Your task to perform on an android device: find snoozed emails in the gmail app Image 0: 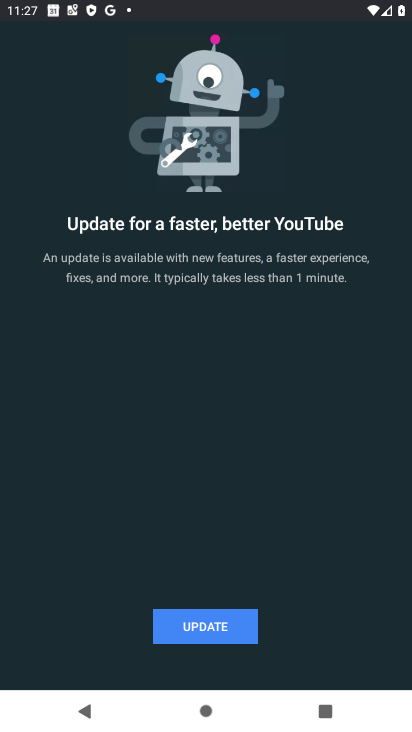
Step 0: press home button
Your task to perform on an android device: find snoozed emails in the gmail app Image 1: 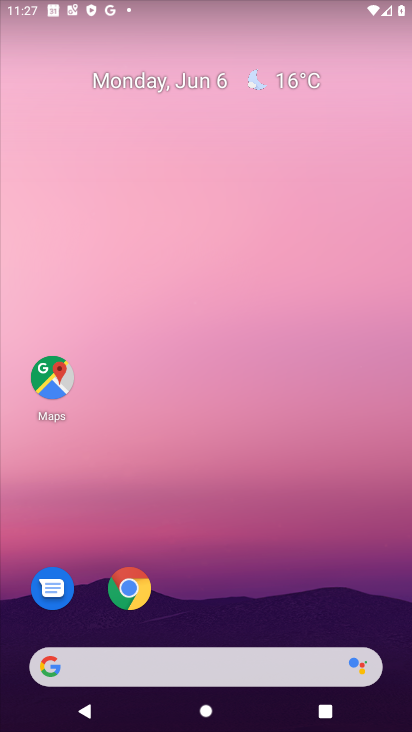
Step 1: drag from (313, 572) to (322, 292)
Your task to perform on an android device: find snoozed emails in the gmail app Image 2: 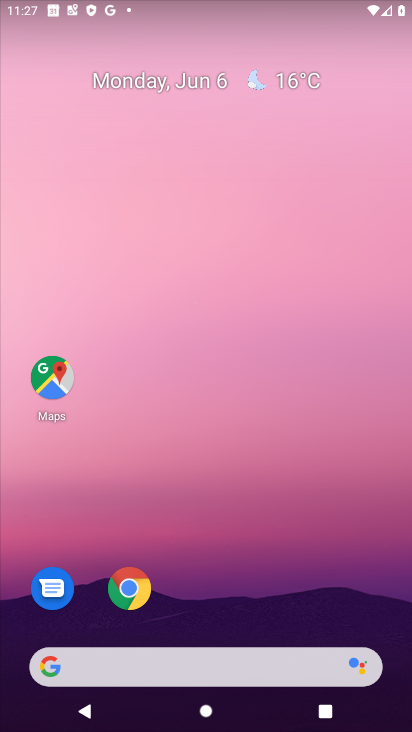
Step 2: drag from (320, 502) to (279, 133)
Your task to perform on an android device: find snoozed emails in the gmail app Image 3: 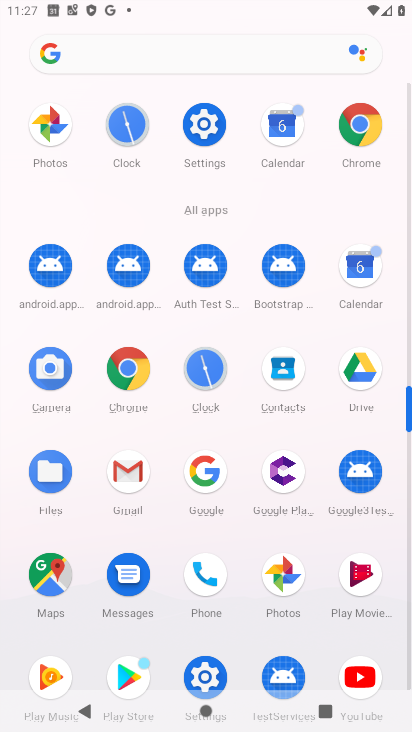
Step 3: click (125, 472)
Your task to perform on an android device: find snoozed emails in the gmail app Image 4: 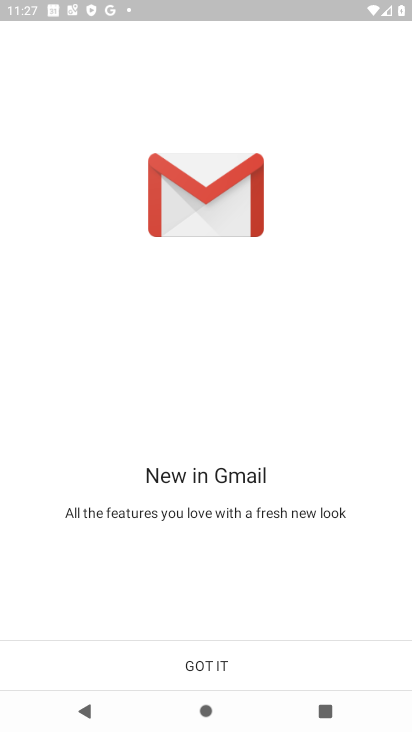
Step 4: click (116, 666)
Your task to perform on an android device: find snoozed emails in the gmail app Image 5: 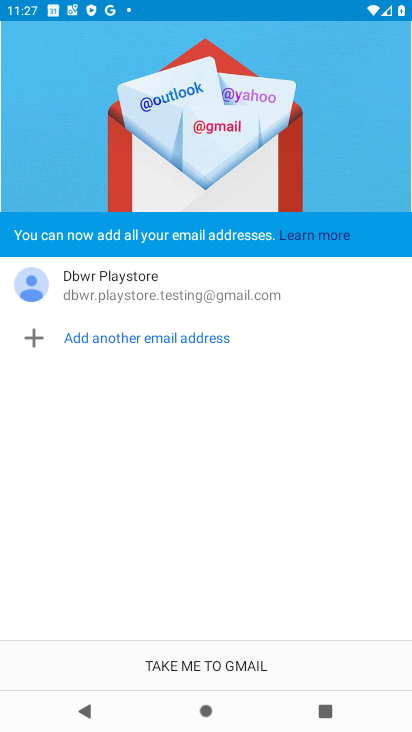
Step 5: click (116, 666)
Your task to perform on an android device: find snoozed emails in the gmail app Image 6: 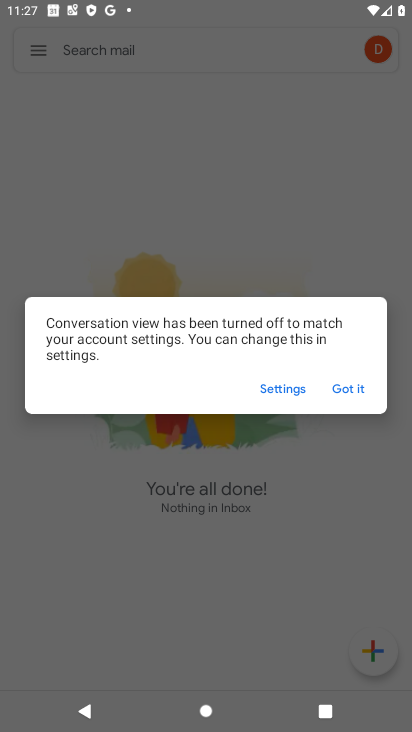
Step 6: click (339, 386)
Your task to perform on an android device: find snoozed emails in the gmail app Image 7: 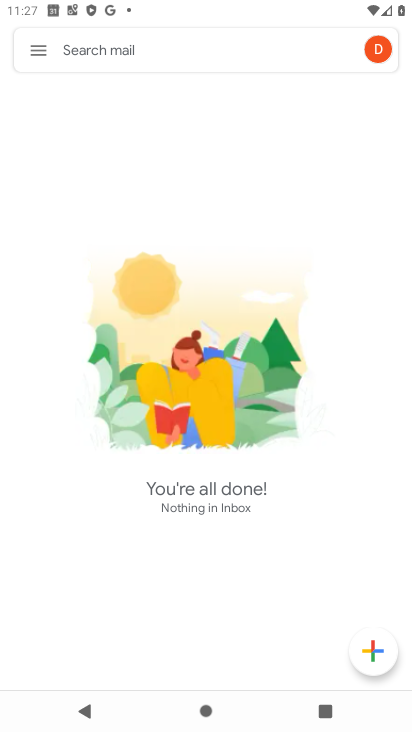
Step 7: click (39, 47)
Your task to perform on an android device: find snoozed emails in the gmail app Image 8: 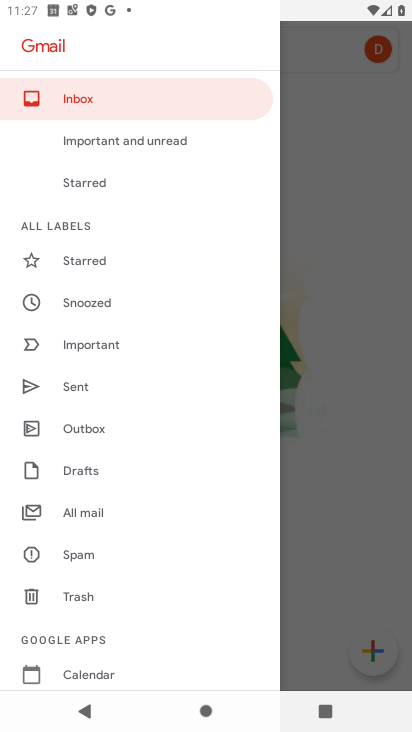
Step 8: click (102, 292)
Your task to perform on an android device: find snoozed emails in the gmail app Image 9: 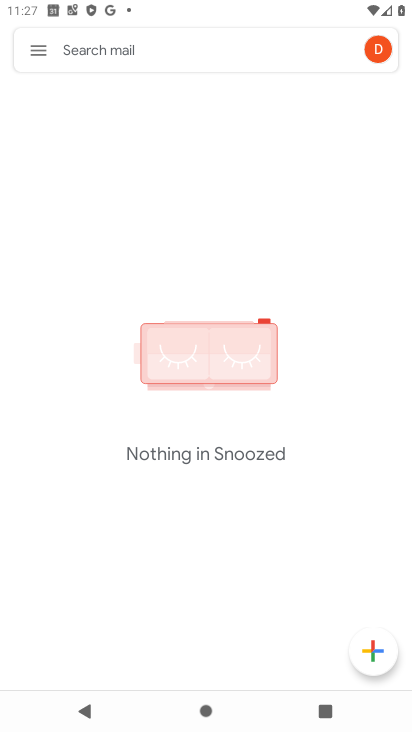
Step 9: task complete